Your task to perform on an android device: Is it going to rain this weekend? Image 0: 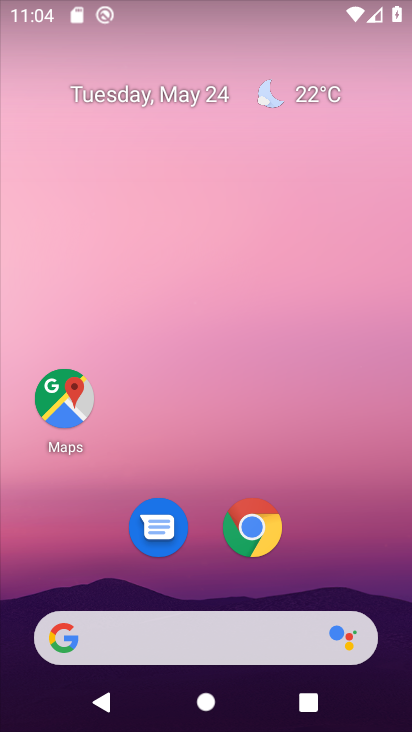
Step 0: press home button
Your task to perform on an android device: Is it going to rain this weekend? Image 1: 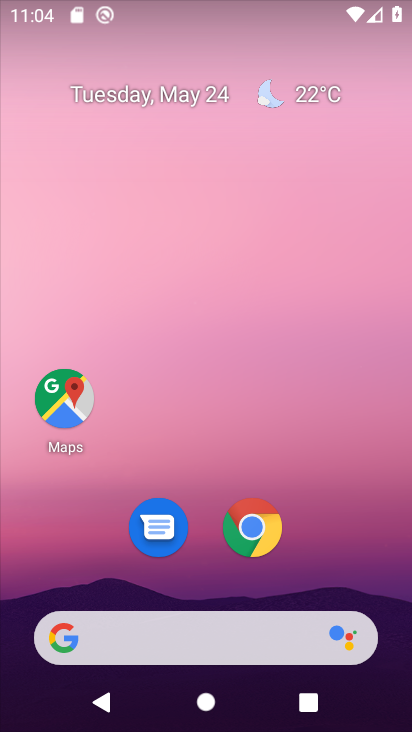
Step 1: click (68, 640)
Your task to perform on an android device: Is it going to rain this weekend? Image 2: 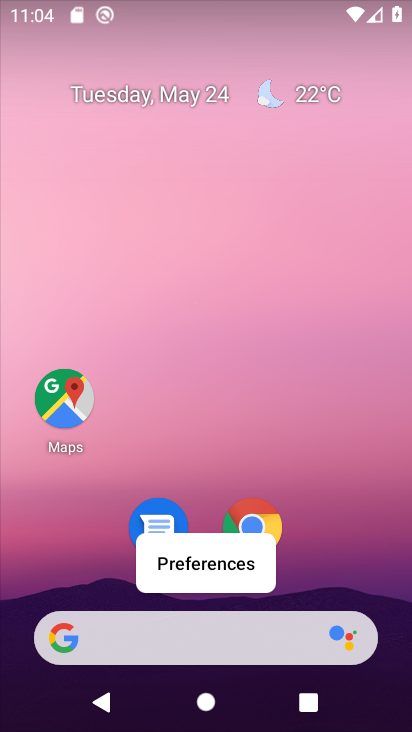
Step 2: click (68, 639)
Your task to perform on an android device: Is it going to rain this weekend? Image 3: 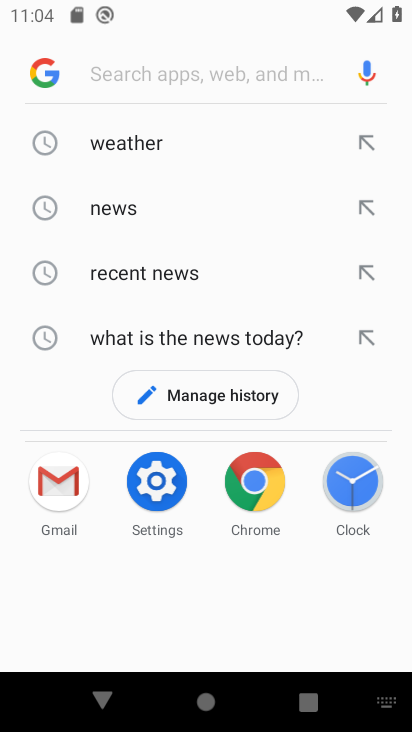
Step 3: click (148, 136)
Your task to perform on an android device: Is it going to rain this weekend? Image 4: 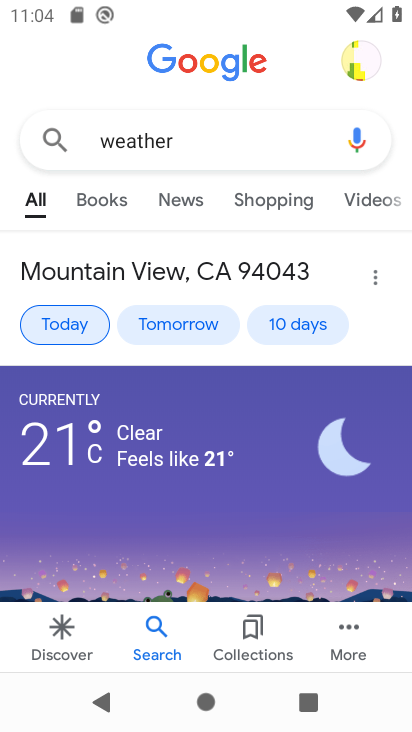
Step 4: click (295, 324)
Your task to perform on an android device: Is it going to rain this weekend? Image 5: 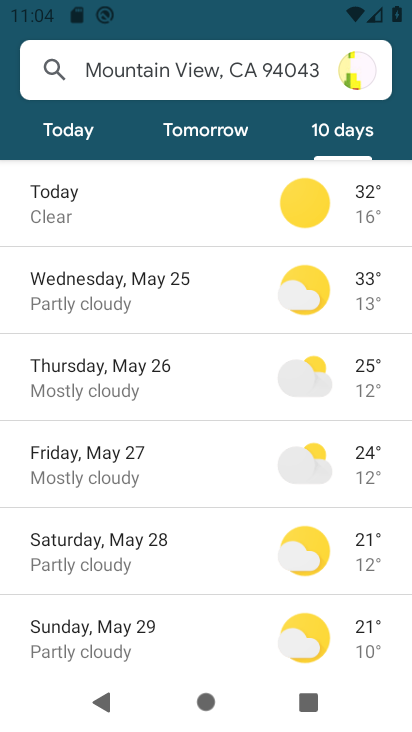
Step 5: drag from (264, 602) to (78, 294)
Your task to perform on an android device: Is it going to rain this weekend? Image 6: 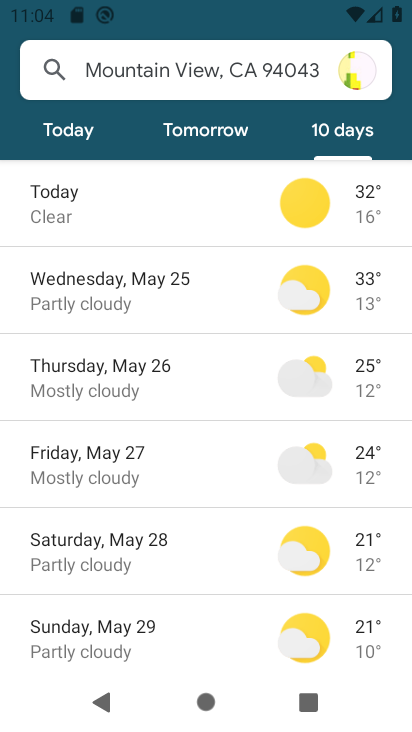
Step 6: drag from (373, 612) to (359, 115)
Your task to perform on an android device: Is it going to rain this weekend? Image 7: 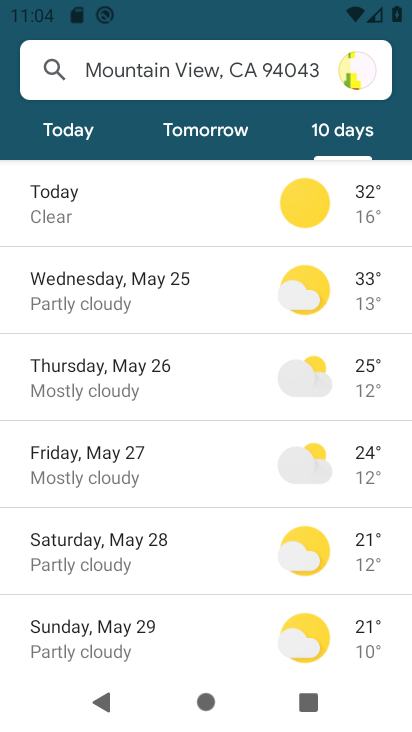
Step 7: drag from (369, 646) to (361, 329)
Your task to perform on an android device: Is it going to rain this weekend? Image 8: 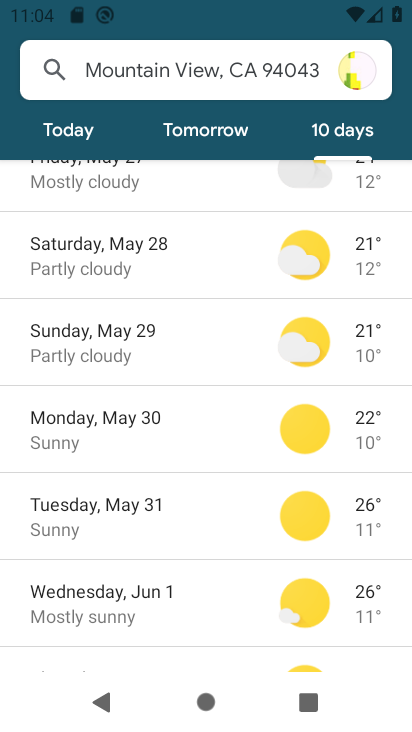
Step 8: click (151, 275)
Your task to perform on an android device: Is it going to rain this weekend? Image 9: 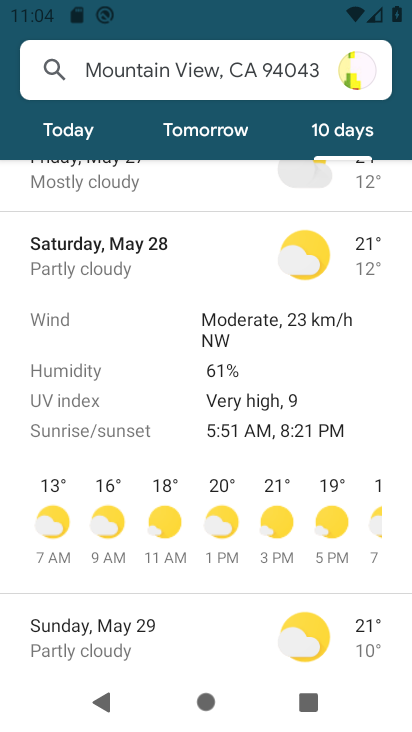
Step 9: task complete